Your task to perform on an android device: Search for the best selling vase on Crate & Barrel Image 0: 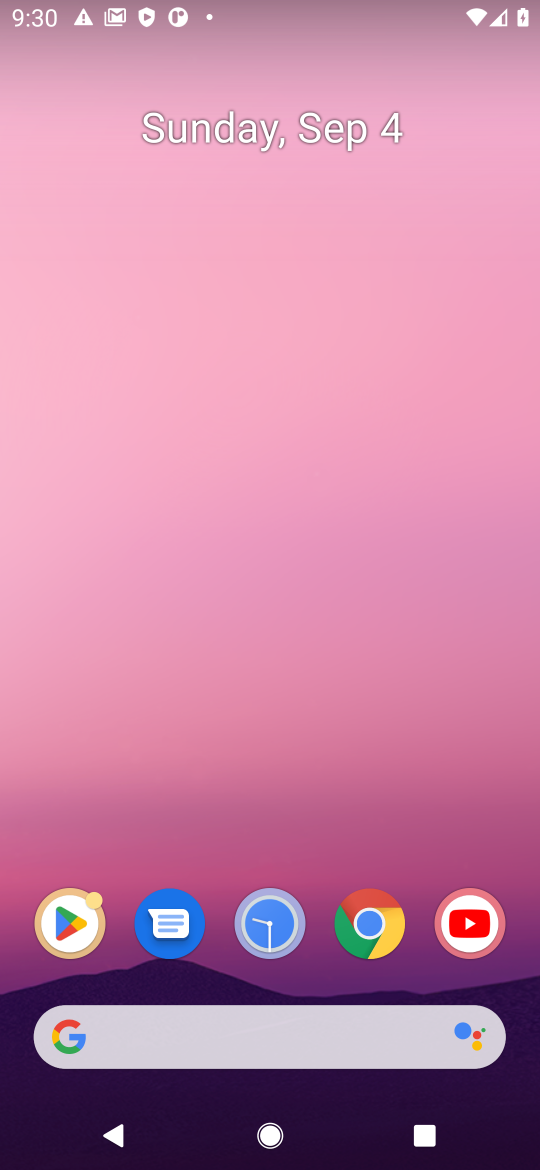
Step 0: press home button
Your task to perform on an android device: Search for the best selling vase on Crate & Barrel Image 1: 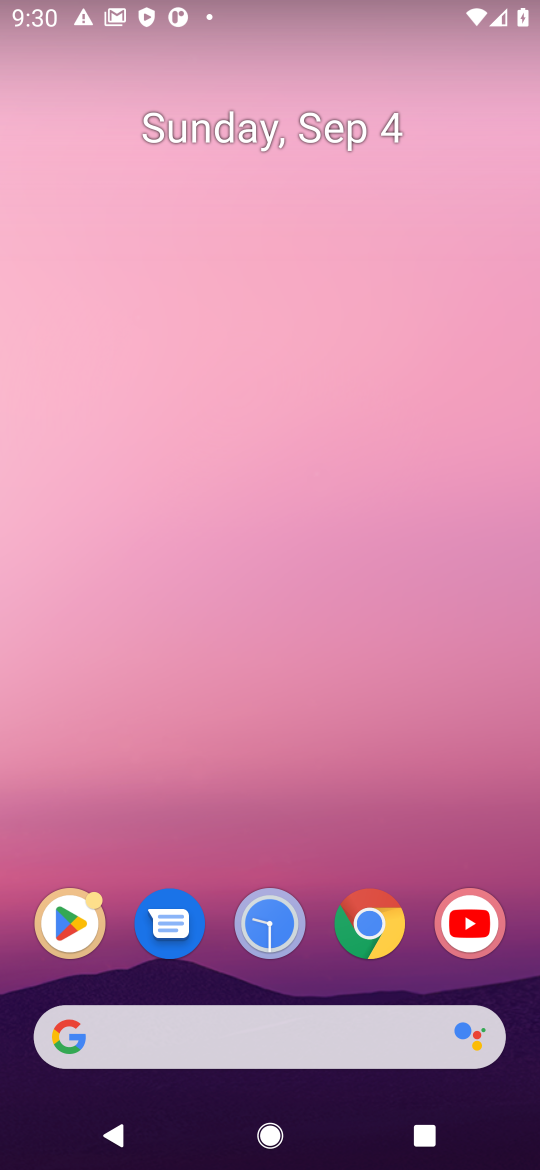
Step 1: click (346, 1033)
Your task to perform on an android device: Search for the best selling vase on Crate & Barrel Image 2: 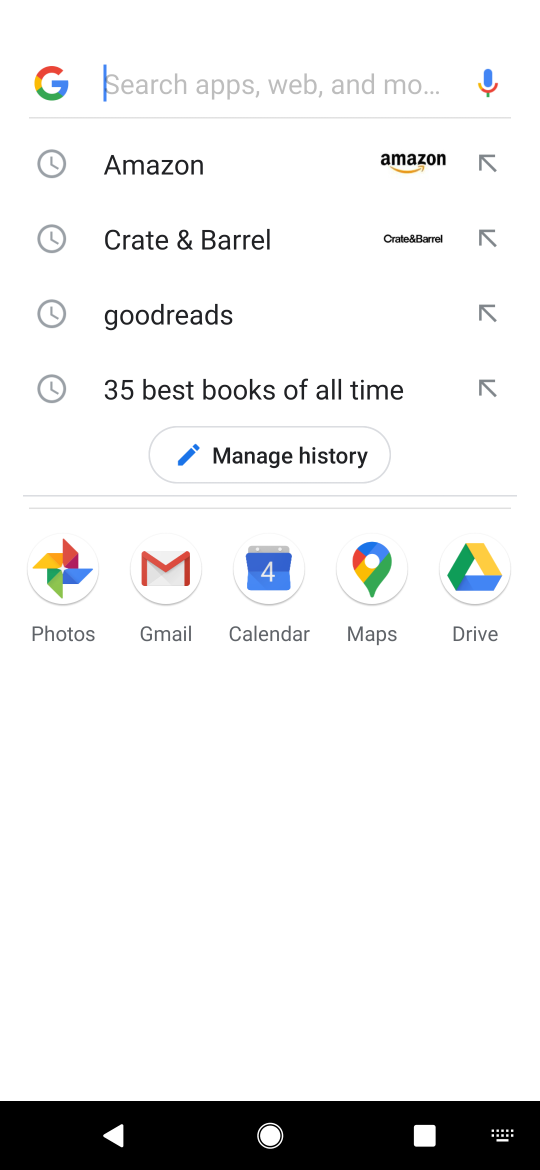
Step 2: press enter
Your task to perform on an android device: Search for the best selling vase on Crate & Barrel Image 3: 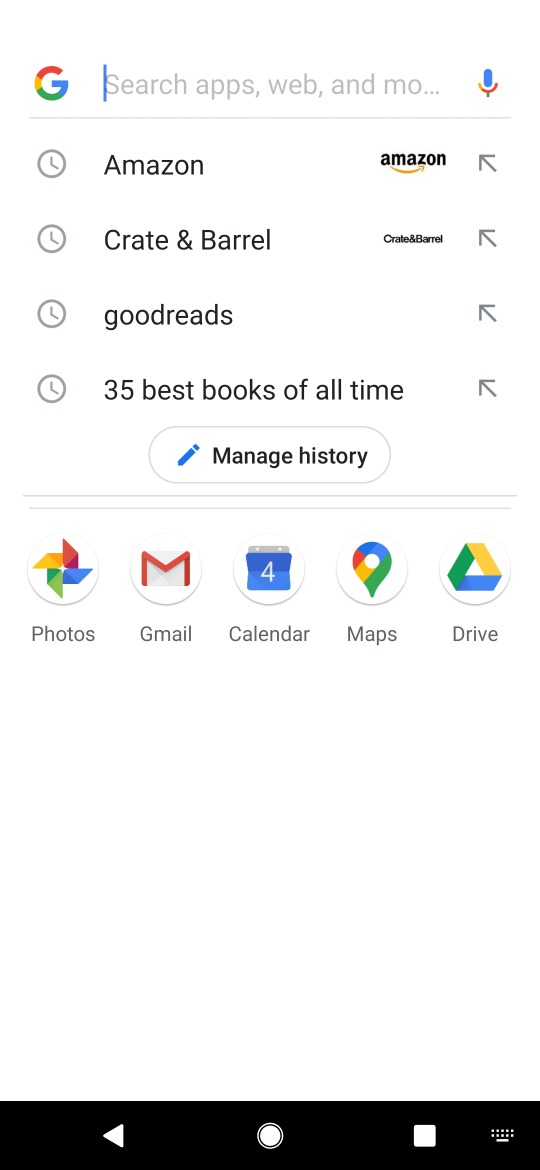
Step 3: type "crate barrel"
Your task to perform on an android device: Search for the best selling vase on Crate & Barrel Image 4: 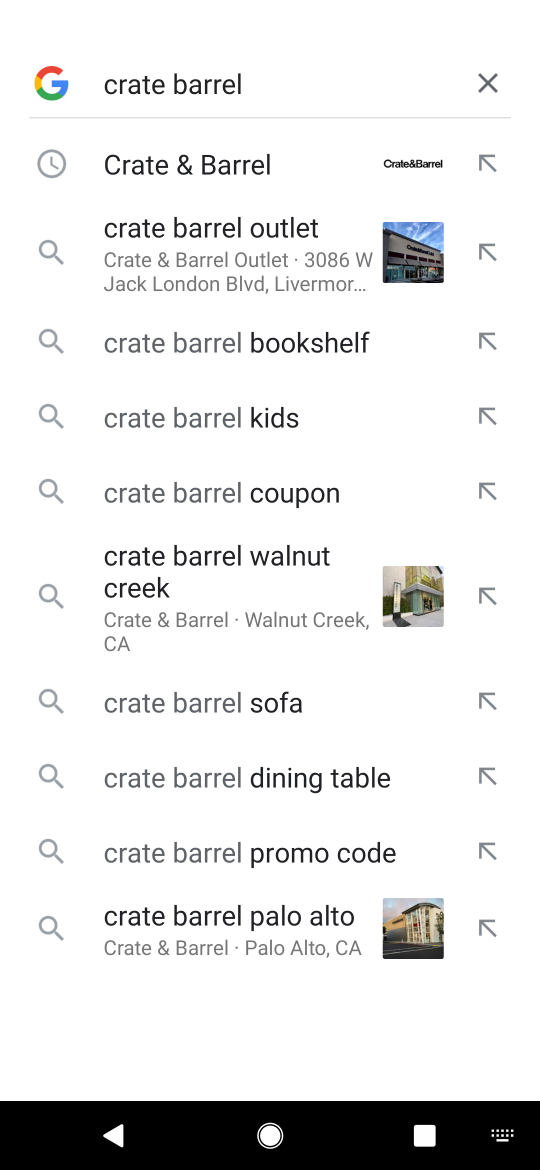
Step 4: click (266, 159)
Your task to perform on an android device: Search for the best selling vase on Crate & Barrel Image 5: 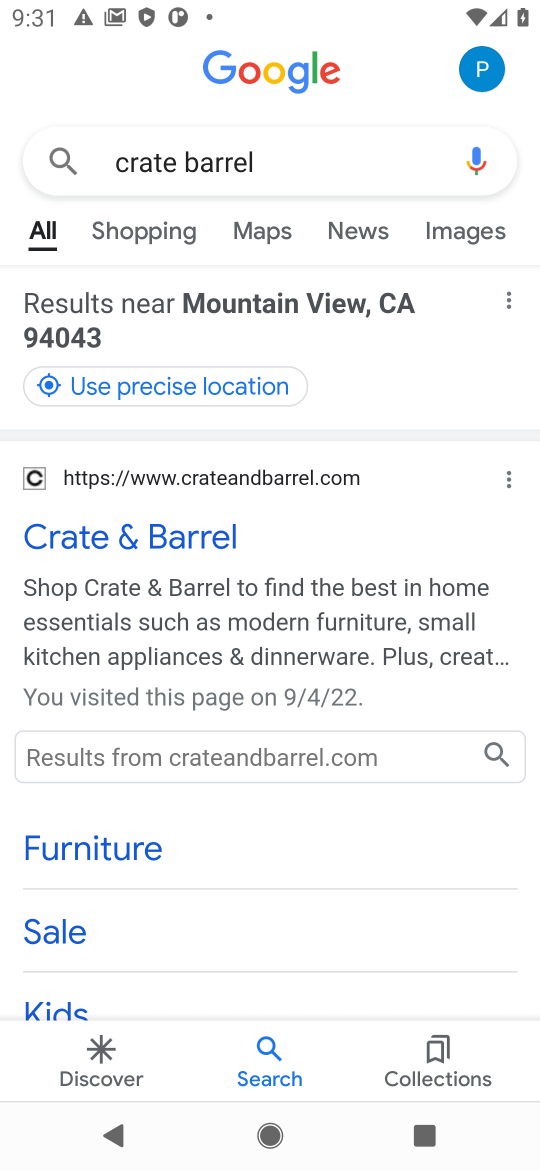
Step 5: click (168, 532)
Your task to perform on an android device: Search for the best selling vase on Crate & Barrel Image 6: 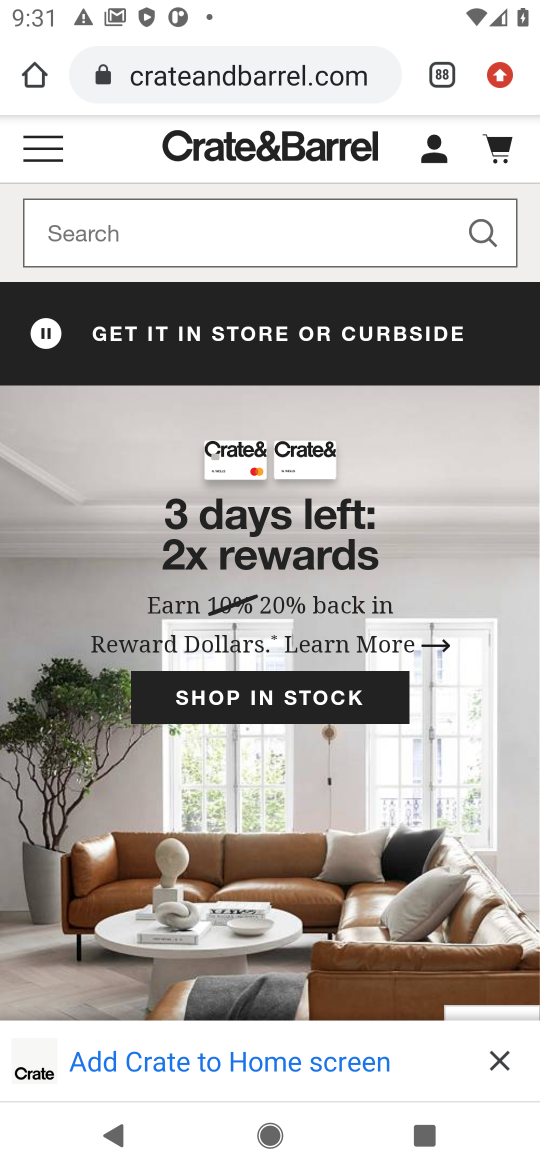
Step 6: click (227, 233)
Your task to perform on an android device: Search for the best selling vase on Crate & Barrel Image 7: 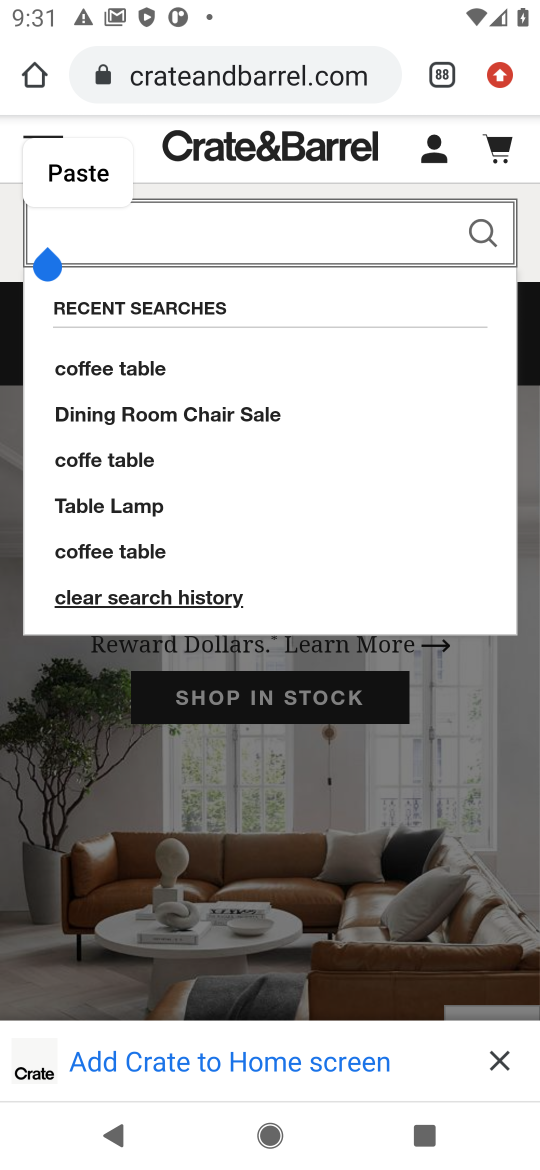
Step 7: press enter
Your task to perform on an android device: Search for the best selling vase on Crate & Barrel Image 8: 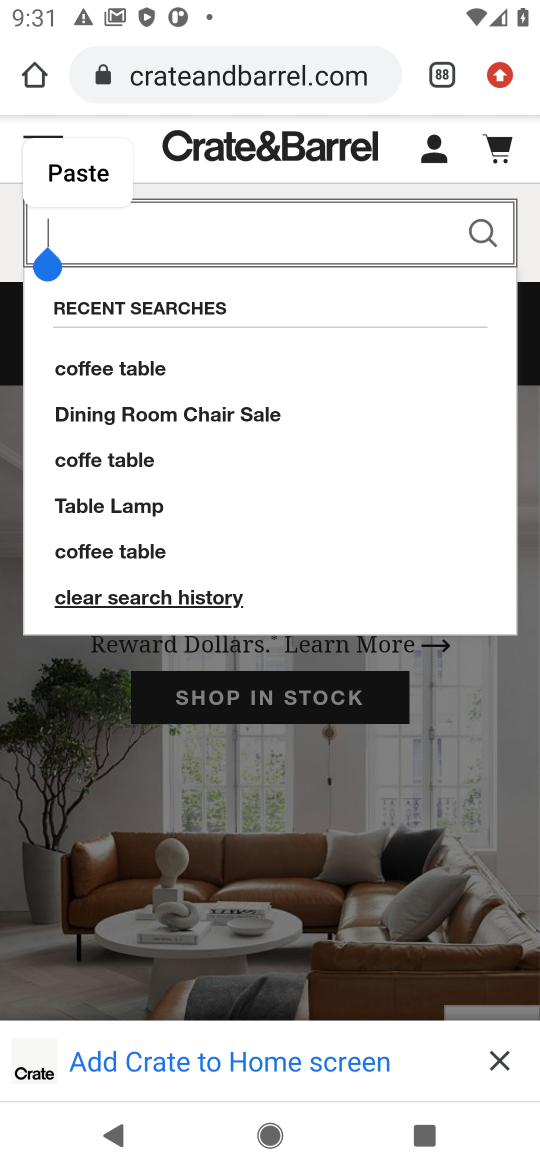
Step 8: type "best selling vase"
Your task to perform on an android device: Search for the best selling vase on Crate & Barrel Image 9: 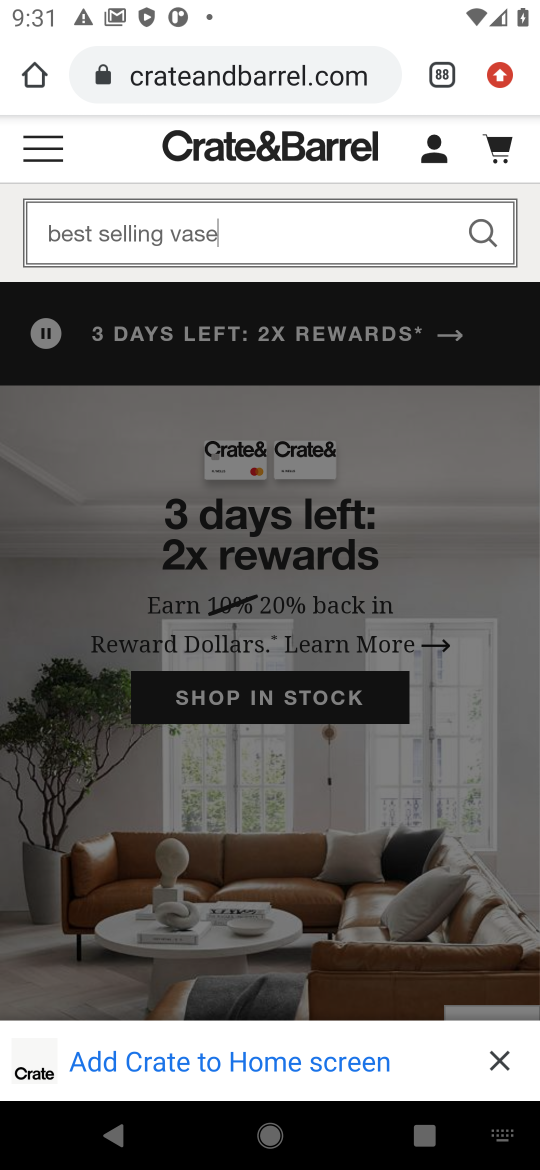
Step 9: click (486, 218)
Your task to perform on an android device: Search for the best selling vase on Crate & Barrel Image 10: 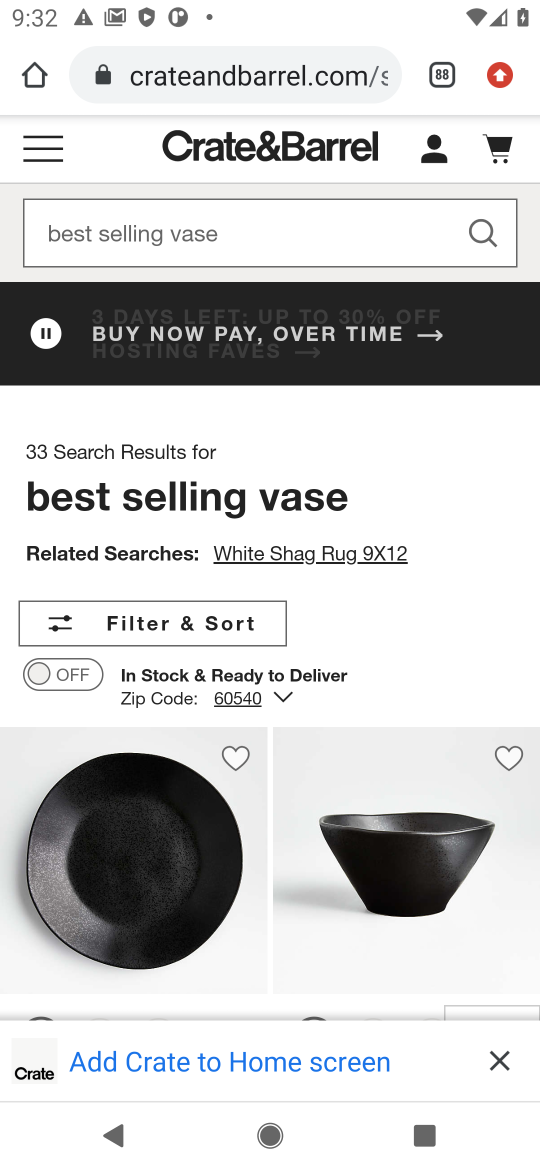
Step 10: task complete